Your task to perform on an android device: Open calendar and show me the first week of next month Image 0: 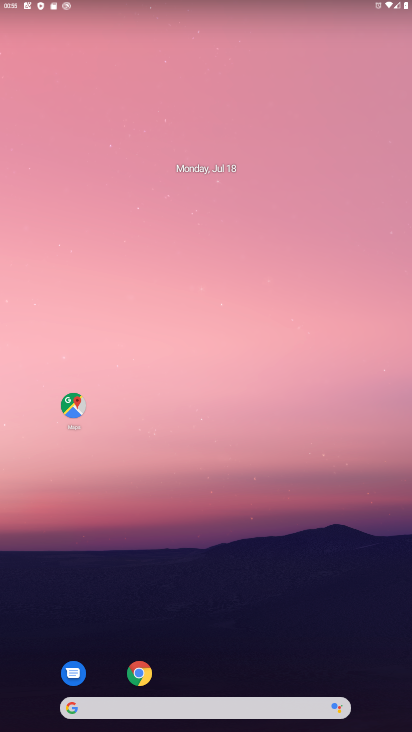
Step 0: drag from (264, 668) to (263, 54)
Your task to perform on an android device: Open calendar and show me the first week of next month Image 1: 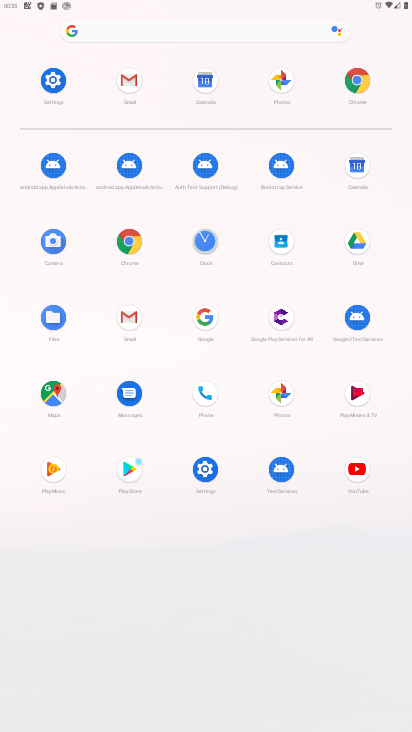
Step 1: click (200, 99)
Your task to perform on an android device: Open calendar and show me the first week of next month Image 2: 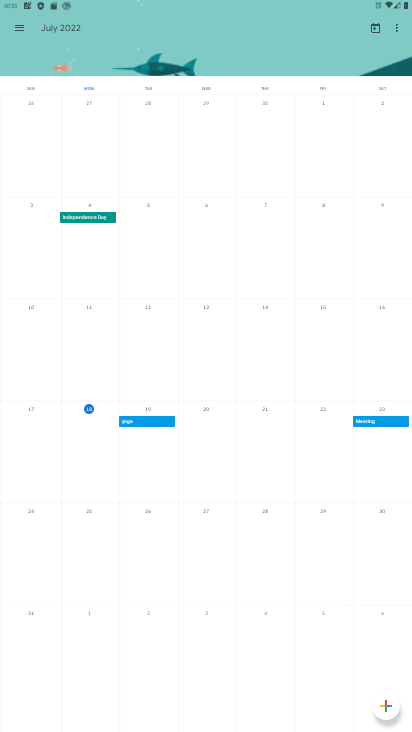
Step 2: task complete